Your task to perform on an android device: toggle pop-ups in chrome Image 0: 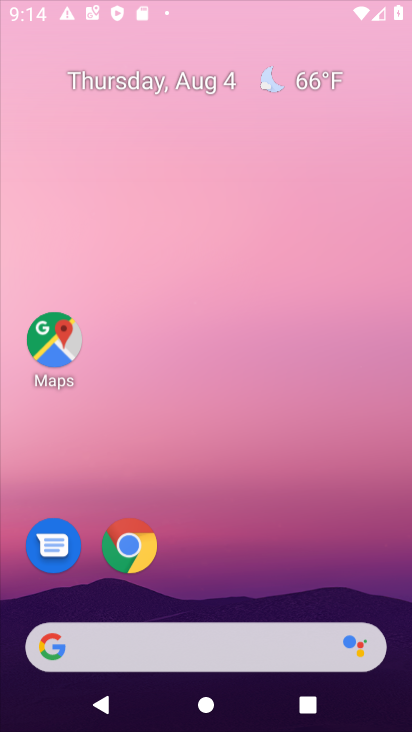
Step 0: press home button
Your task to perform on an android device: toggle pop-ups in chrome Image 1: 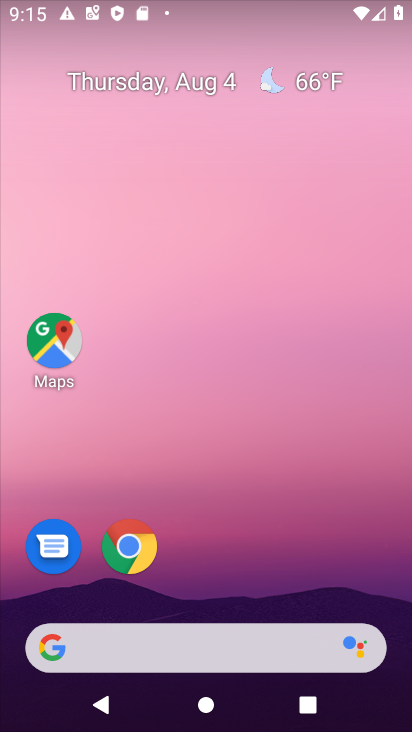
Step 1: drag from (233, 609) to (345, 9)
Your task to perform on an android device: toggle pop-ups in chrome Image 2: 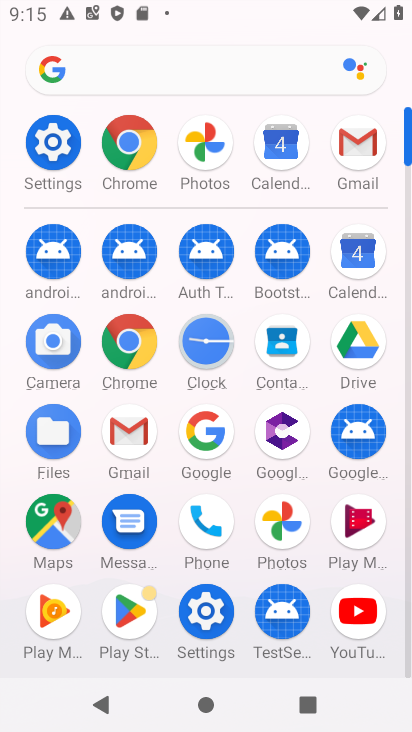
Step 2: click (135, 143)
Your task to perform on an android device: toggle pop-ups in chrome Image 3: 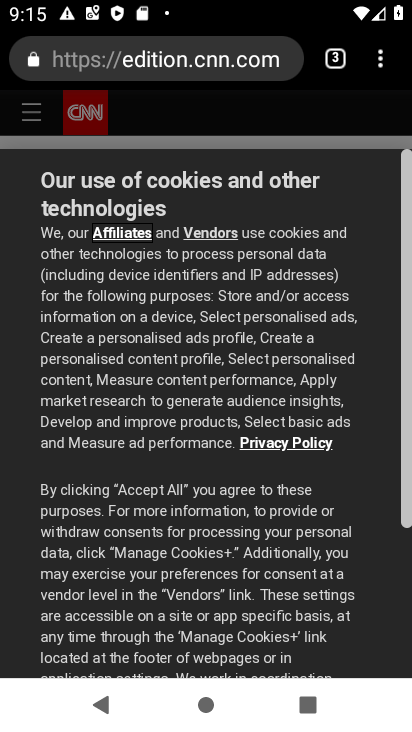
Step 3: drag from (383, 69) to (164, 576)
Your task to perform on an android device: toggle pop-ups in chrome Image 4: 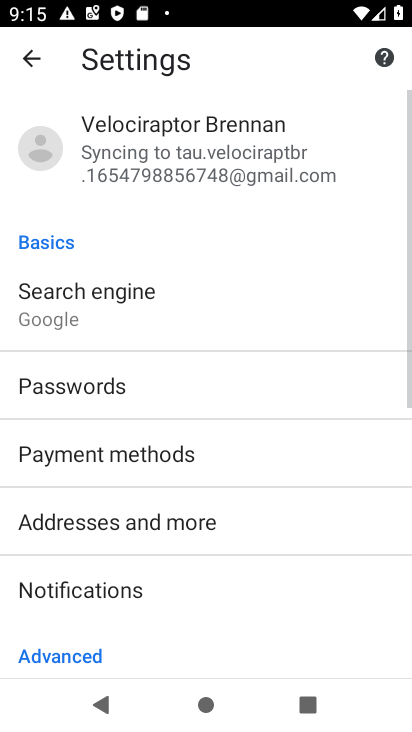
Step 4: drag from (285, 620) to (372, 123)
Your task to perform on an android device: toggle pop-ups in chrome Image 5: 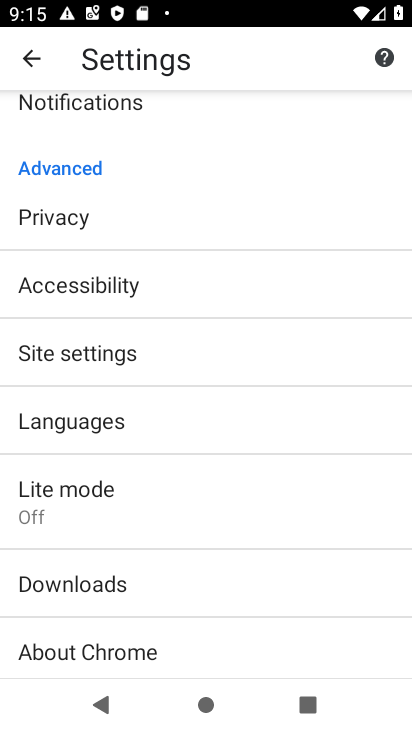
Step 5: click (67, 355)
Your task to perform on an android device: toggle pop-ups in chrome Image 6: 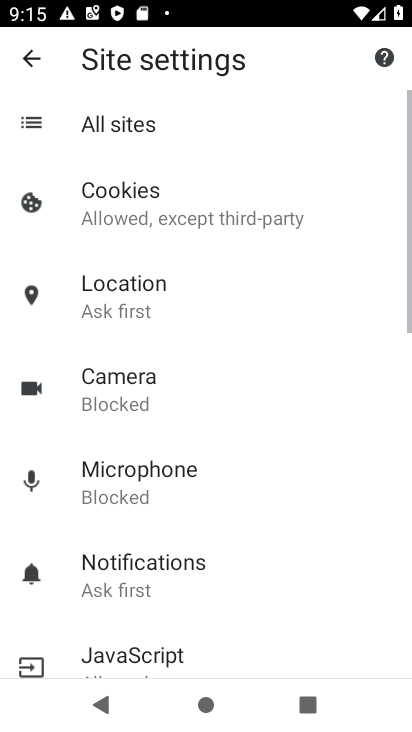
Step 6: drag from (308, 616) to (324, 129)
Your task to perform on an android device: toggle pop-ups in chrome Image 7: 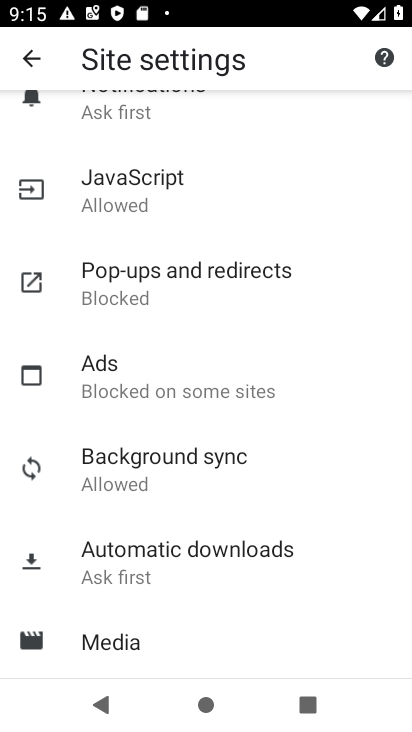
Step 7: click (138, 293)
Your task to perform on an android device: toggle pop-ups in chrome Image 8: 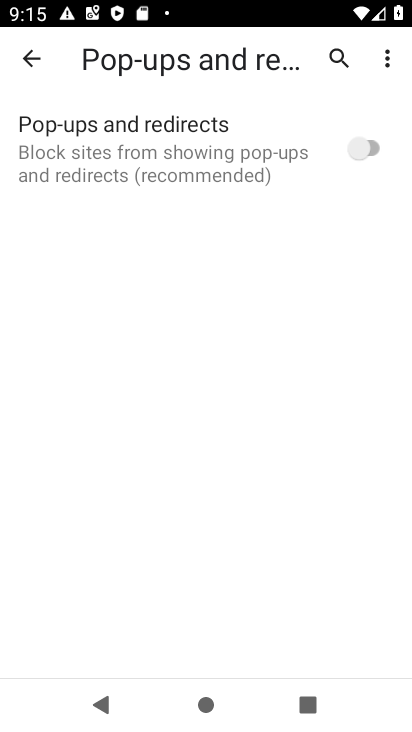
Step 8: click (360, 146)
Your task to perform on an android device: toggle pop-ups in chrome Image 9: 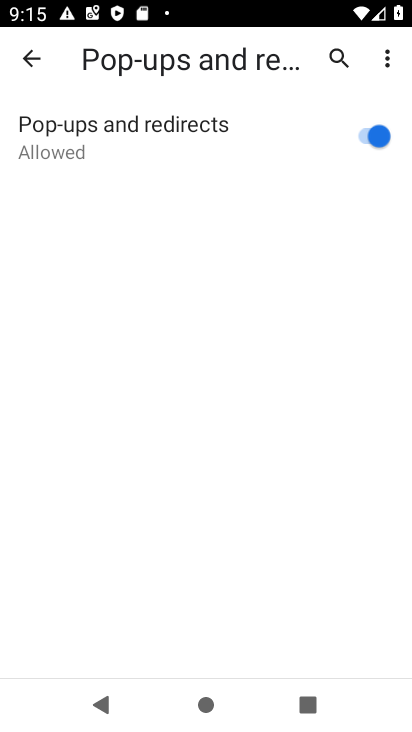
Step 9: task complete